Your task to perform on an android device: Open Chrome and go to settings Image 0: 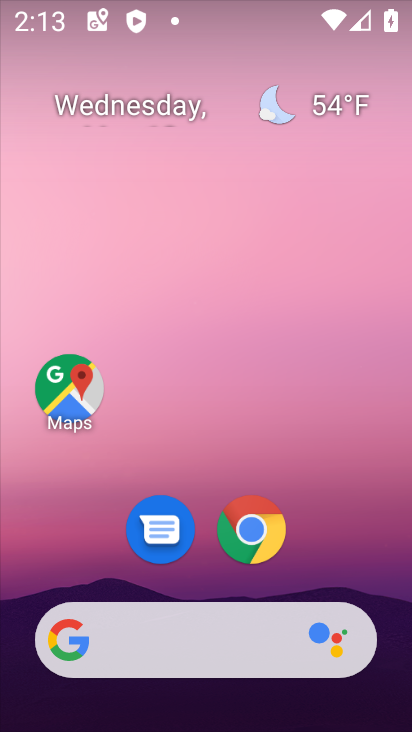
Step 0: click (247, 528)
Your task to perform on an android device: Open Chrome and go to settings Image 1: 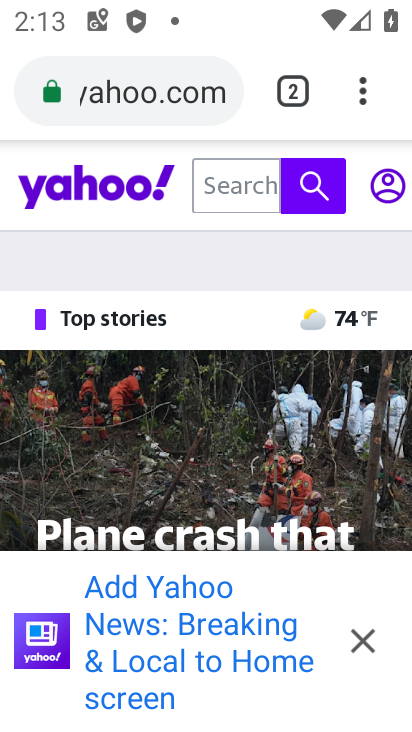
Step 1: task complete